Your task to perform on an android device: When is my next meeting? Image 0: 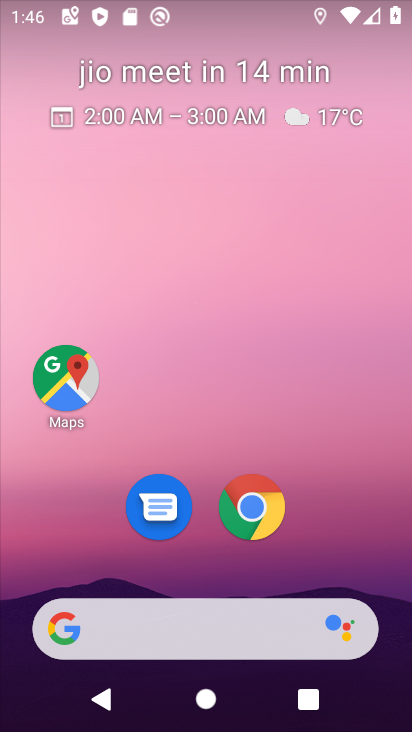
Step 0: drag from (343, 528) to (225, 84)
Your task to perform on an android device: When is my next meeting? Image 1: 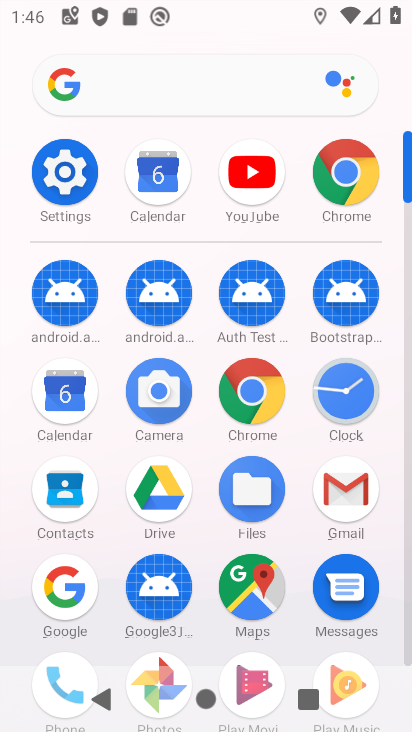
Step 1: drag from (11, 477) to (39, 240)
Your task to perform on an android device: When is my next meeting? Image 2: 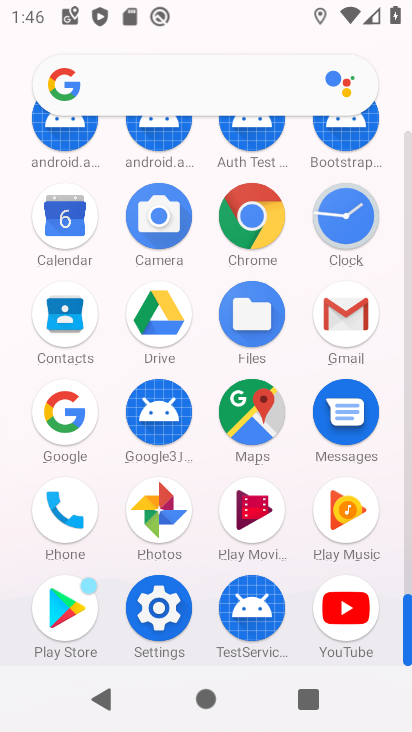
Step 2: click (68, 205)
Your task to perform on an android device: When is my next meeting? Image 3: 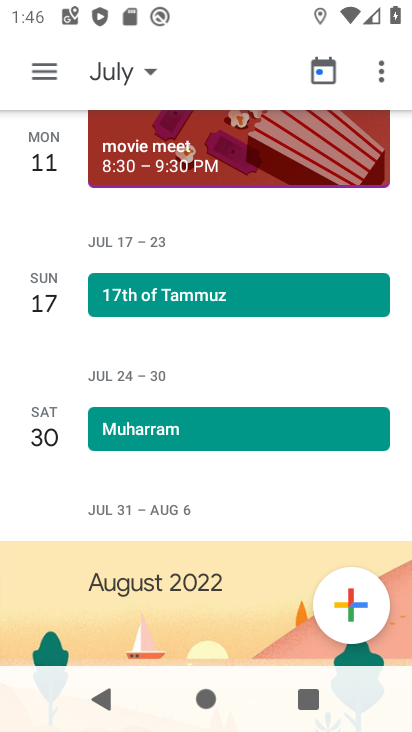
Step 3: click (33, 60)
Your task to perform on an android device: When is my next meeting? Image 4: 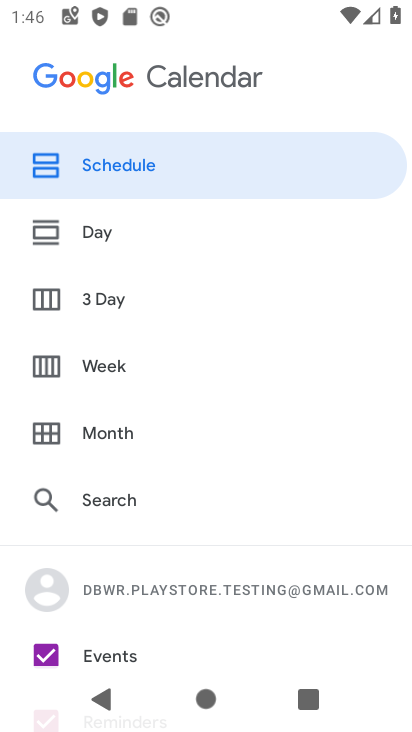
Step 4: click (203, 167)
Your task to perform on an android device: When is my next meeting? Image 5: 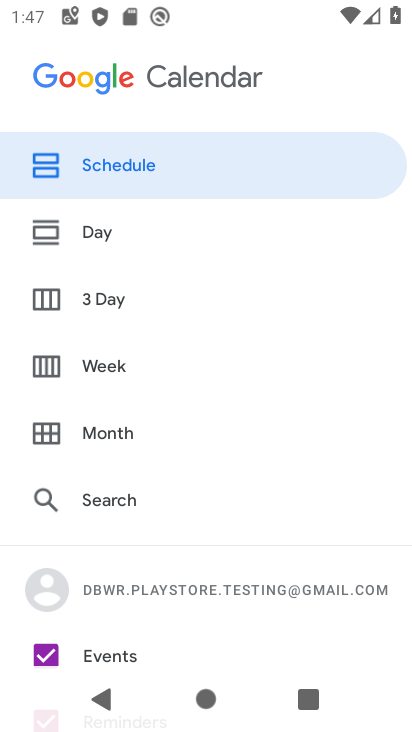
Step 5: drag from (276, 551) to (293, 229)
Your task to perform on an android device: When is my next meeting? Image 6: 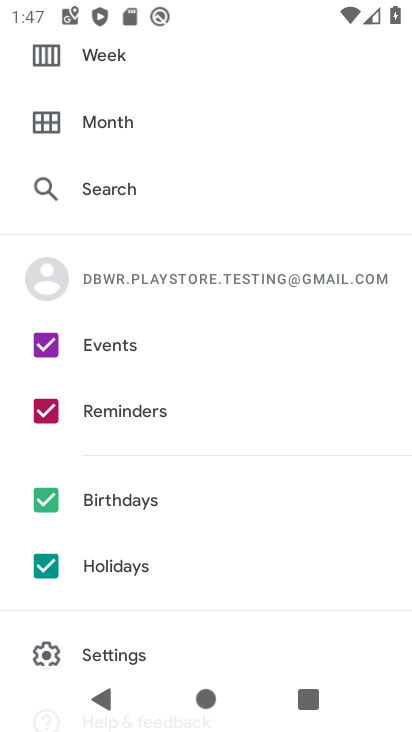
Step 6: drag from (280, 581) to (320, 109)
Your task to perform on an android device: When is my next meeting? Image 7: 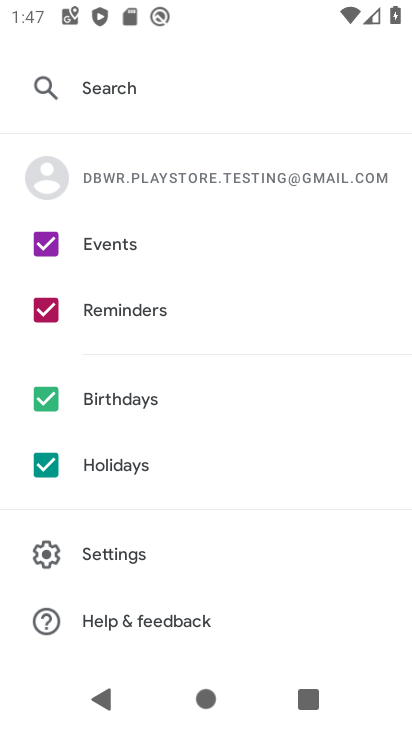
Step 7: drag from (320, 124) to (319, 634)
Your task to perform on an android device: When is my next meeting? Image 8: 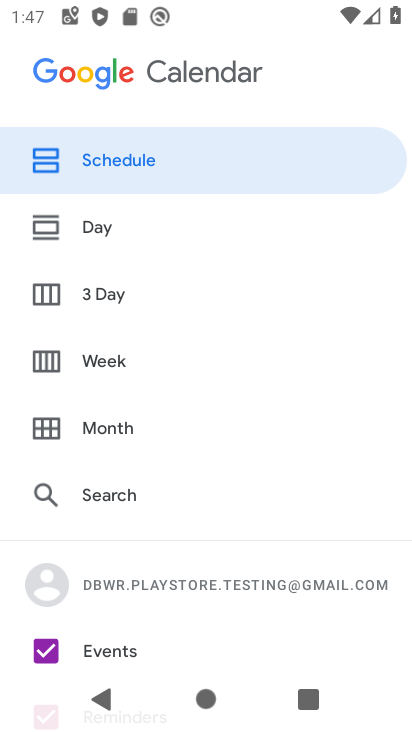
Step 8: click (213, 168)
Your task to perform on an android device: When is my next meeting? Image 9: 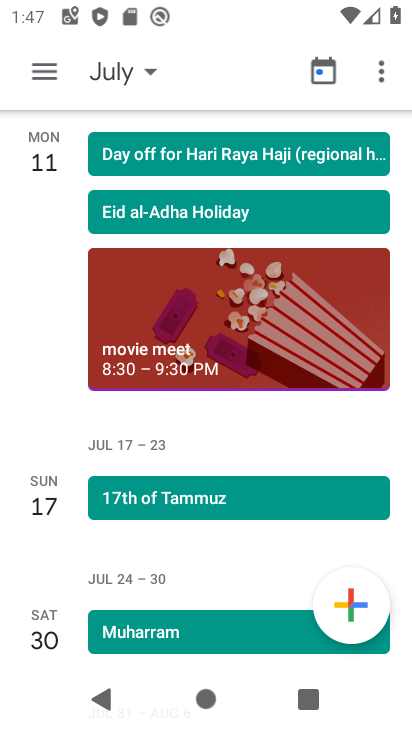
Step 9: click (50, 57)
Your task to perform on an android device: When is my next meeting? Image 10: 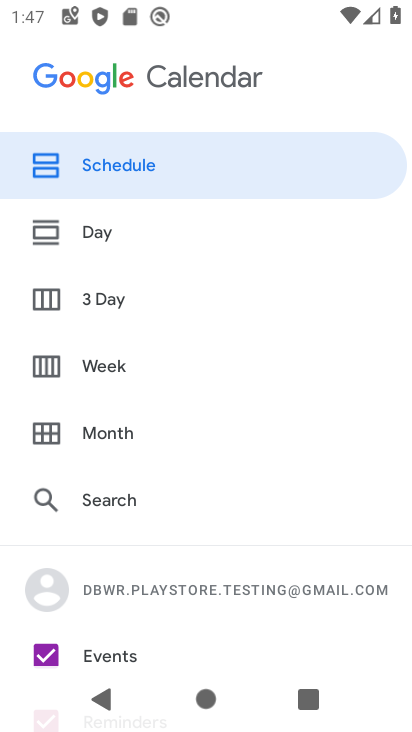
Step 10: click (280, 157)
Your task to perform on an android device: When is my next meeting? Image 11: 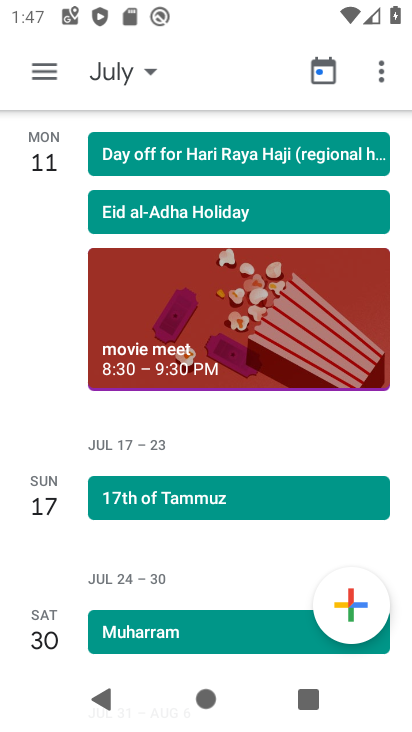
Step 11: task complete